Your task to perform on an android device: Go to Google maps Image 0: 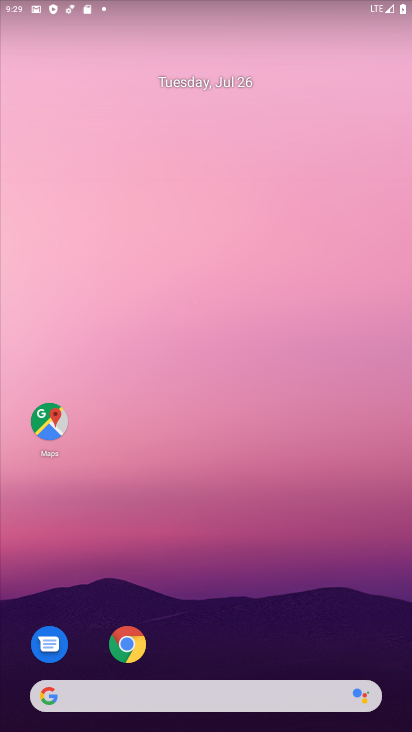
Step 0: click (50, 423)
Your task to perform on an android device: Go to Google maps Image 1: 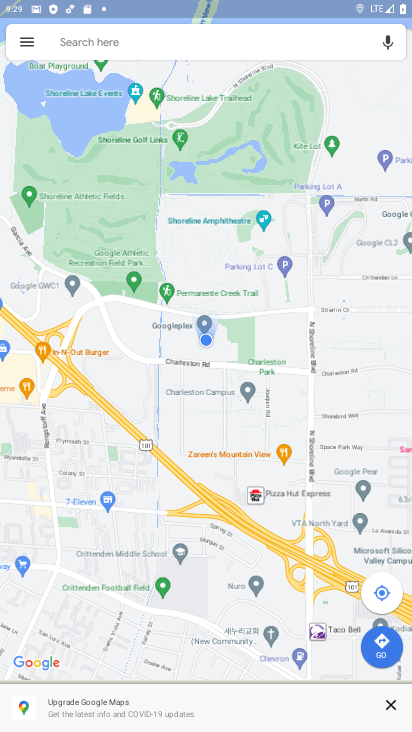
Step 1: task complete